Your task to perform on an android device: delete the emails in spam in the gmail app Image 0: 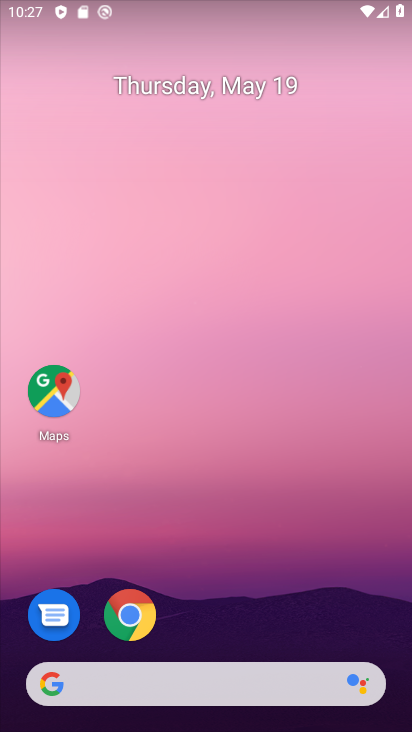
Step 0: drag from (266, 645) to (315, 0)
Your task to perform on an android device: delete the emails in spam in the gmail app Image 1: 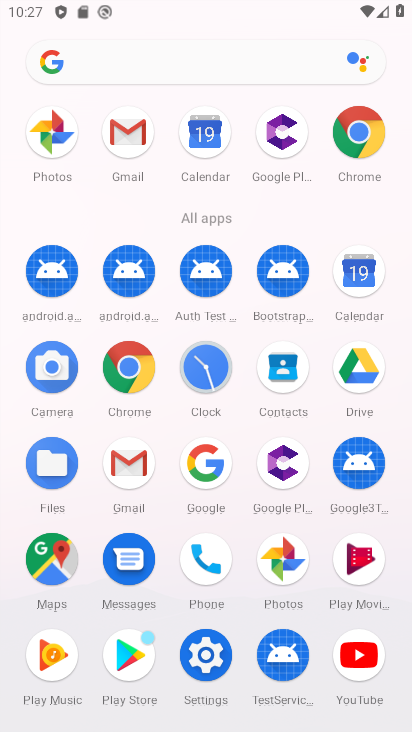
Step 1: click (134, 135)
Your task to perform on an android device: delete the emails in spam in the gmail app Image 2: 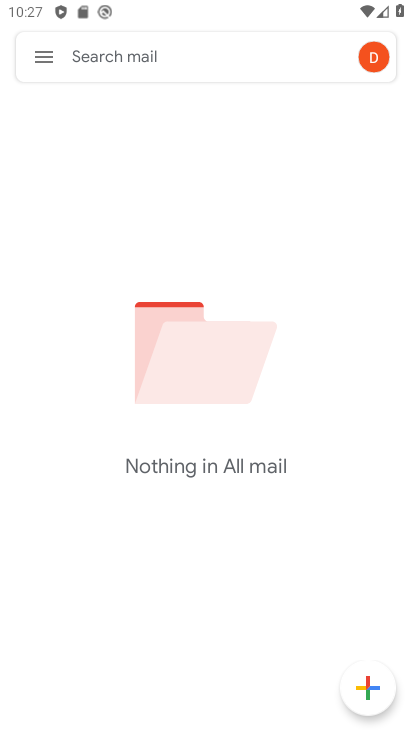
Step 2: click (40, 55)
Your task to perform on an android device: delete the emails in spam in the gmail app Image 3: 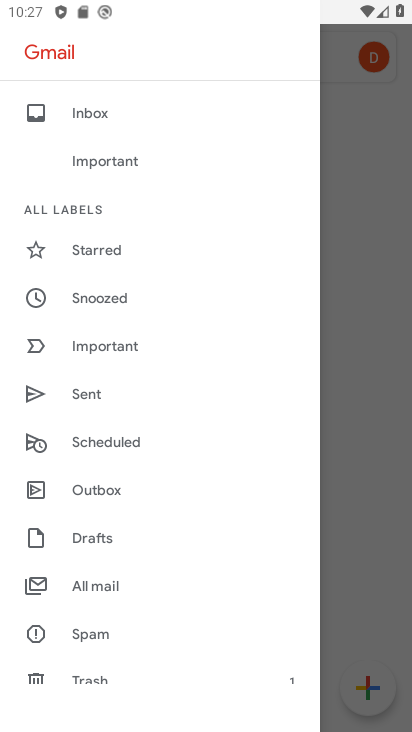
Step 3: click (102, 630)
Your task to perform on an android device: delete the emails in spam in the gmail app Image 4: 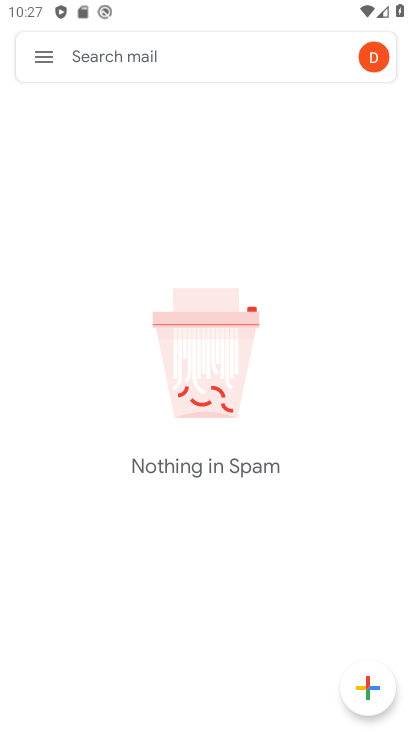
Step 4: task complete